Your task to perform on an android device: toggle wifi Image 0: 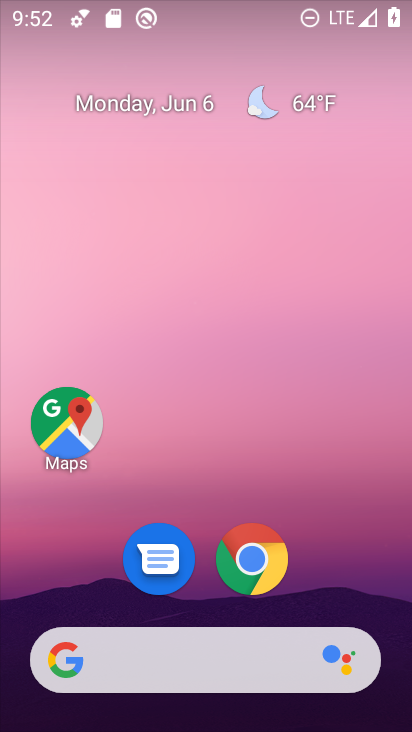
Step 0: drag from (206, 723) to (180, 130)
Your task to perform on an android device: toggle wifi Image 1: 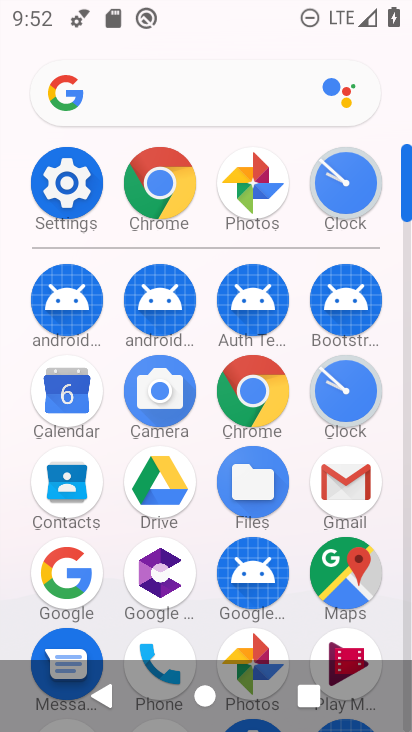
Step 1: click (70, 192)
Your task to perform on an android device: toggle wifi Image 2: 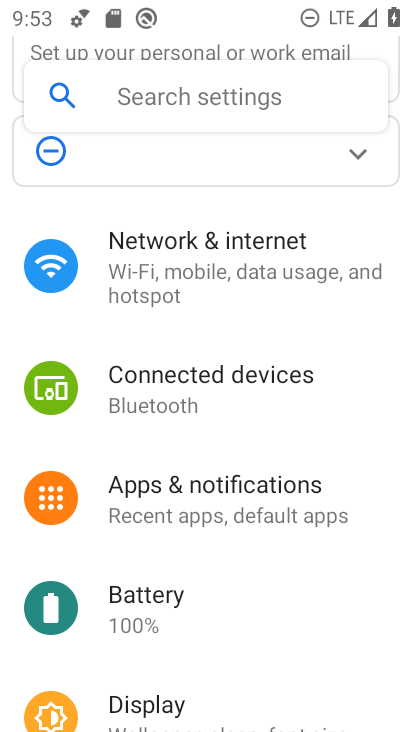
Step 2: click (156, 259)
Your task to perform on an android device: toggle wifi Image 3: 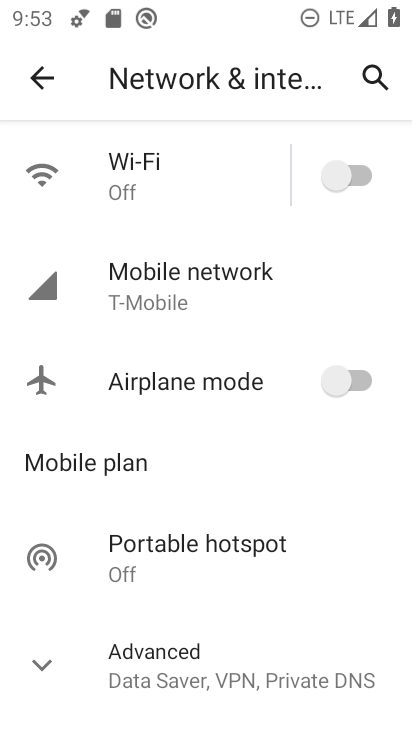
Step 3: click (360, 173)
Your task to perform on an android device: toggle wifi Image 4: 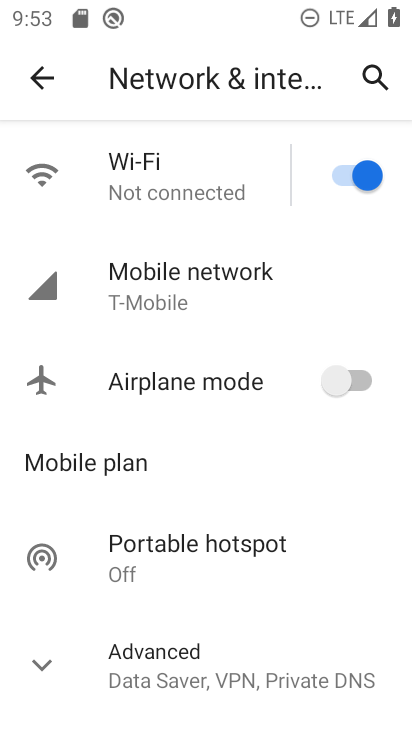
Step 4: task complete